Your task to perform on an android device: toggle translation in the chrome app Image 0: 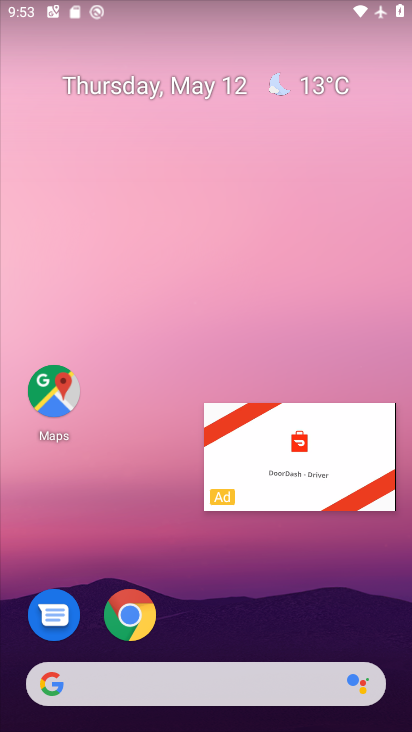
Step 0: click (373, 428)
Your task to perform on an android device: toggle translation in the chrome app Image 1: 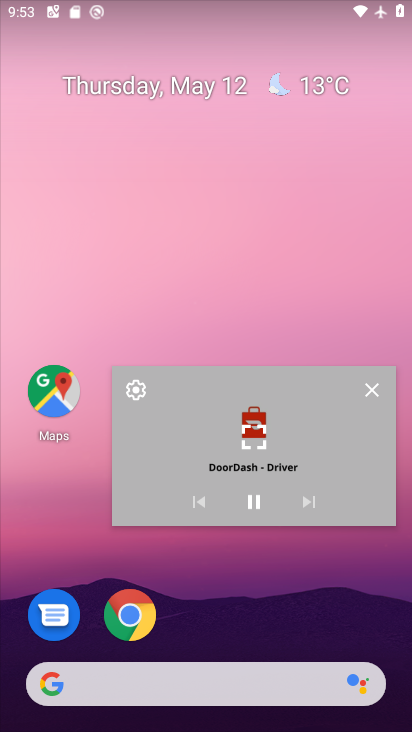
Step 1: click (368, 393)
Your task to perform on an android device: toggle translation in the chrome app Image 2: 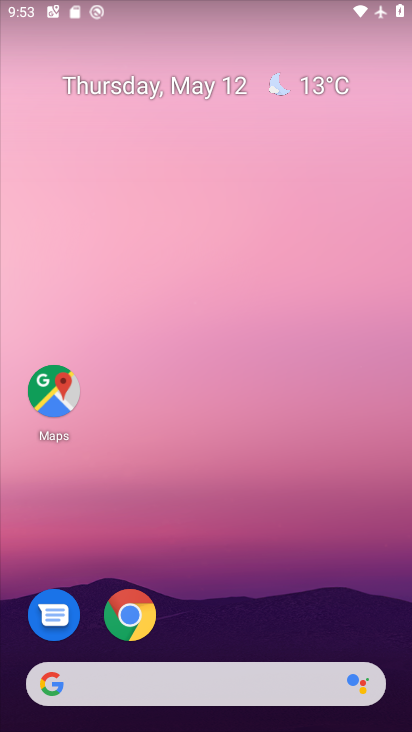
Step 2: click (139, 611)
Your task to perform on an android device: toggle translation in the chrome app Image 3: 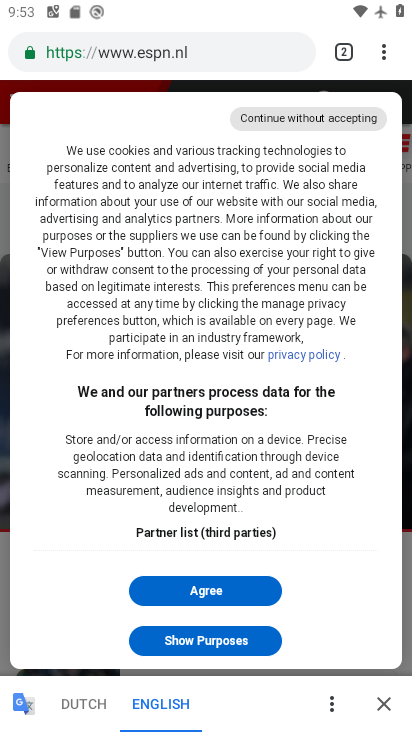
Step 3: click (382, 56)
Your task to perform on an android device: toggle translation in the chrome app Image 4: 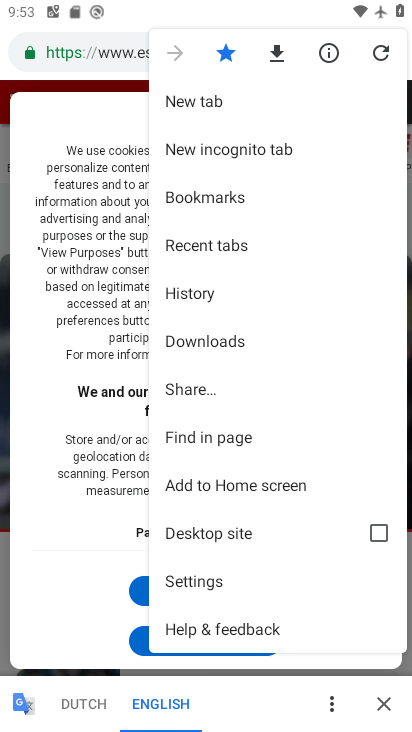
Step 4: click (212, 583)
Your task to perform on an android device: toggle translation in the chrome app Image 5: 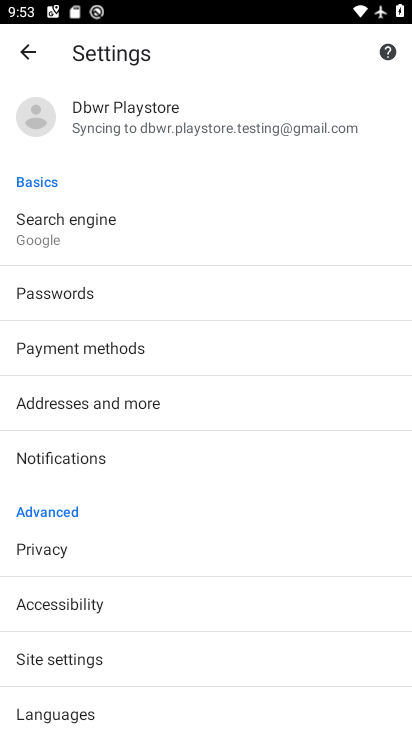
Step 5: drag from (217, 520) to (197, 306)
Your task to perform on an android device: toggle translation in the chrome app Image 6: 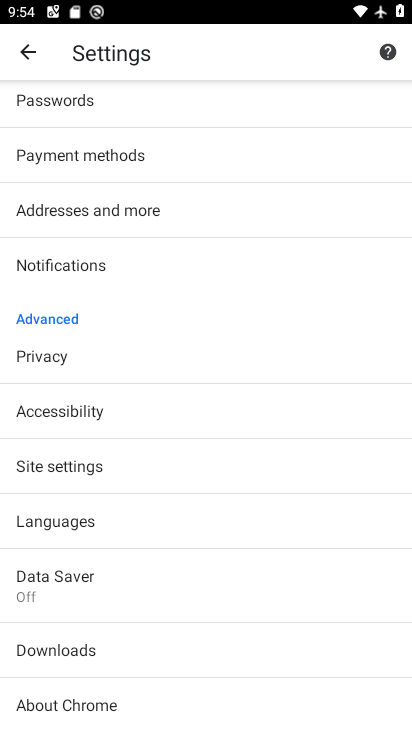
Step 6: click (90, 518)
Your task to perform on an android device: toggle translation in the chrome app Image 7: 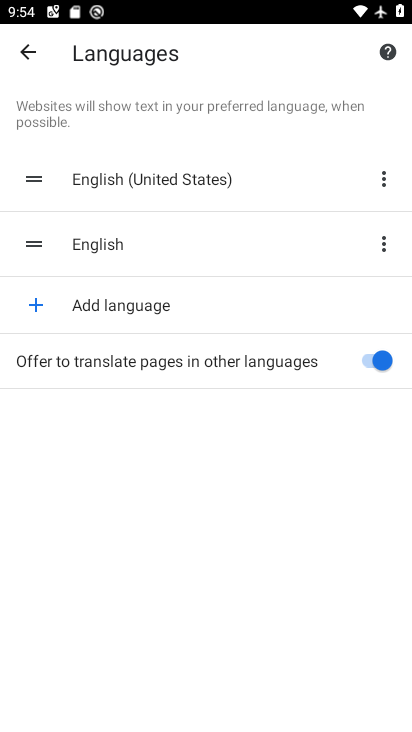
Step 7: click (379, 360)
Your task to perform on an android device: toggle translation in the chrome app Image 8: 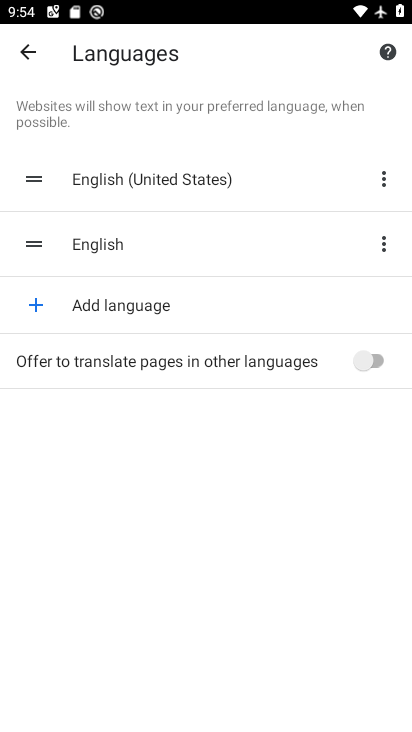
Step 8: task complete